Your task to perform on an android device: change keyboard looks Image 0: 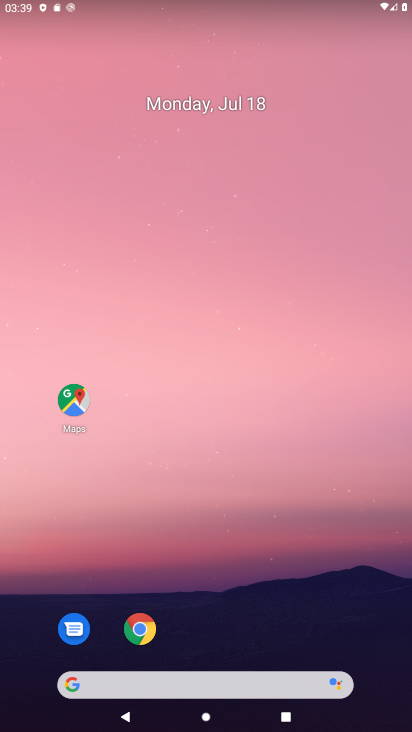
Step 0: drag from (394, 713) to (276, 173)
Your task to perform on an android device: change keyboard looks Image 1: 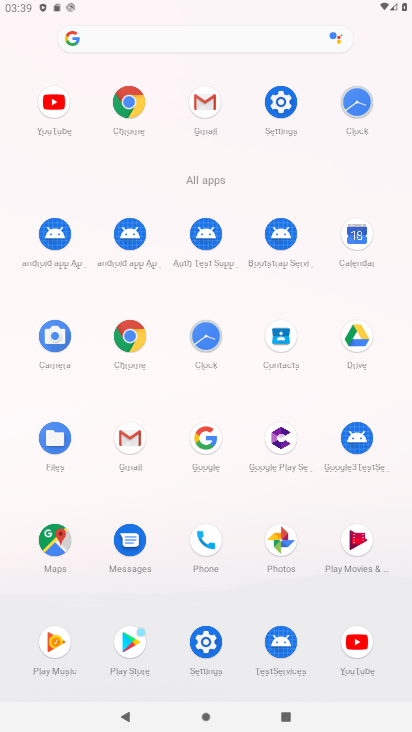
Step 1: click (280, 110)
Your task to perform on an android device: change keyboard looks Image 2: 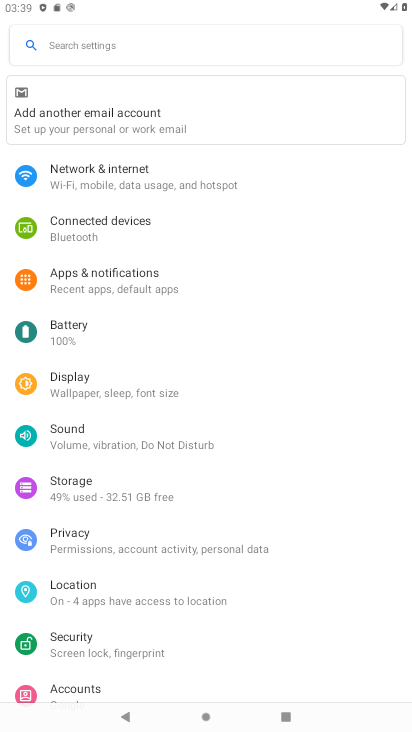
Step 2: drag from (183, 664) to (114, 273)
Your task to perform on an android device: change keyboard looks Image 3: 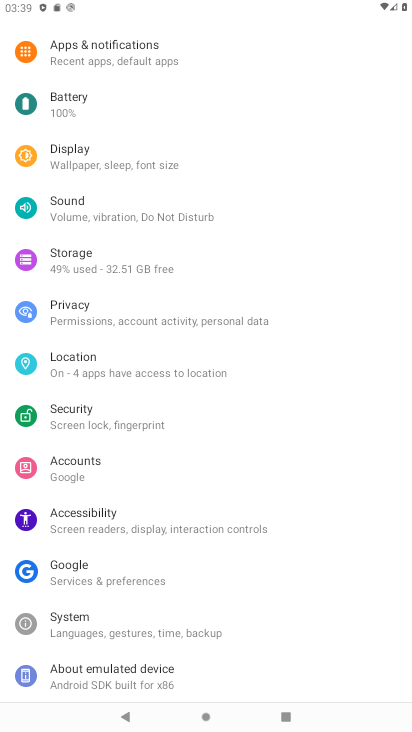
Step 3: click (115, 630)
Your task to perform on an android device: change keyboard looks Image 4: 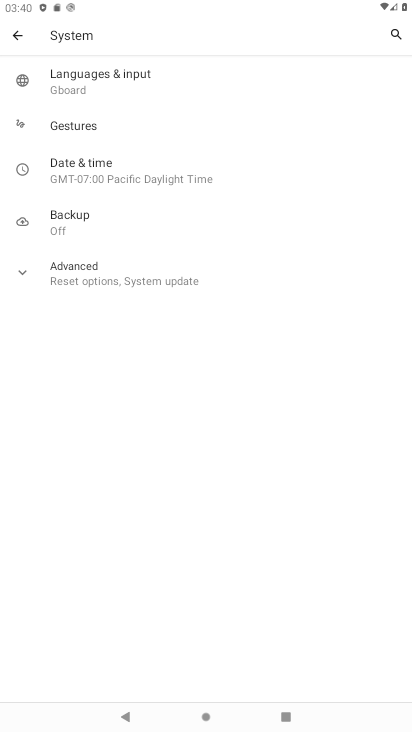
Step 4: click (88, 87)
Your task to perform on an android device: change keyboard looks Image 5: 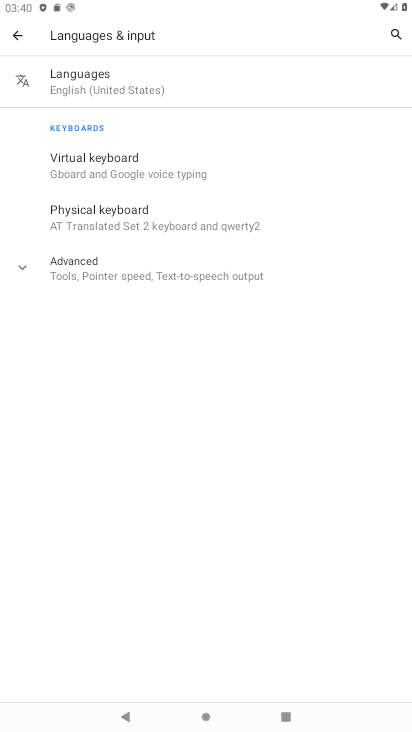
Step 5: click (60, 154)
Your task to perform on an android device: change keyboard looks Image 6: 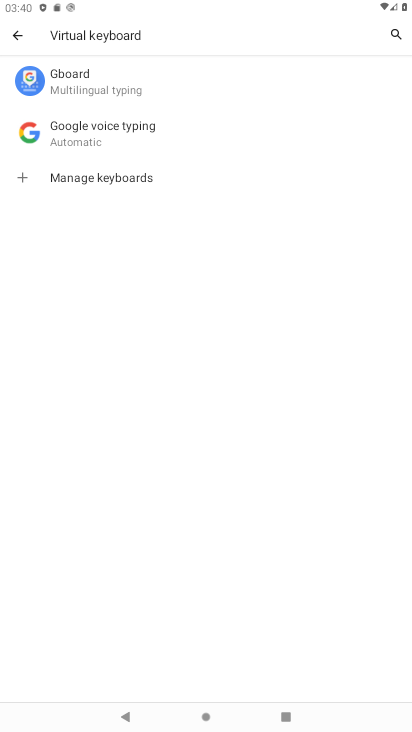
Step 6: click (68, 83)
Your task to perform on an android device: change keyboard looks Image 7: 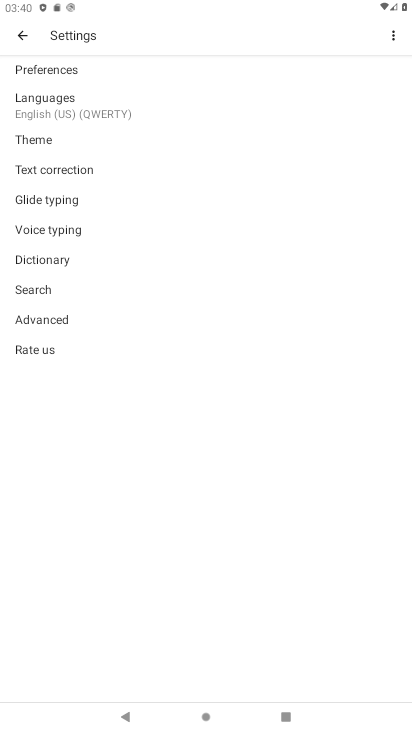
Step 7: click (39, 137)
Your task to perform on an android device: change keyboard looks Image 8: 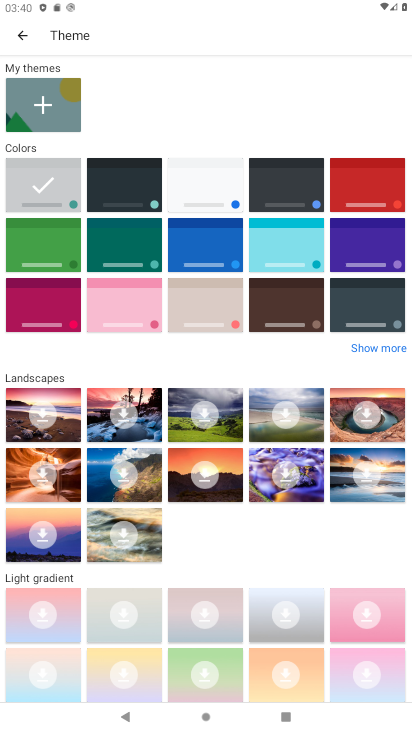
Step 8: click (130, 235)
Your task to perform on an android device: change keyboard looks Image 9: 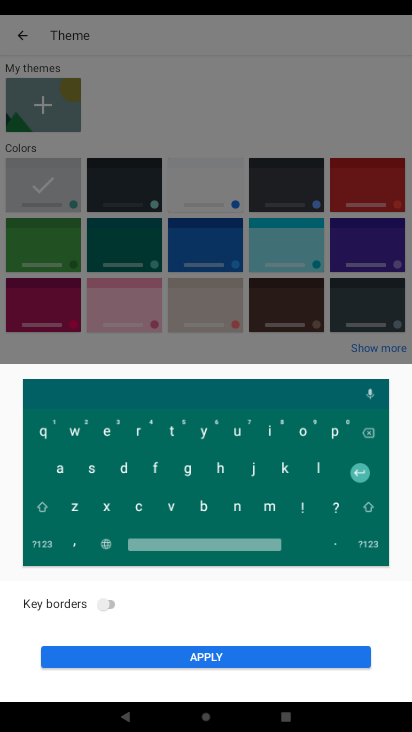
Step 9: click (147, 656)
Your task to perform on an android device: change keyboard looks Image 10: 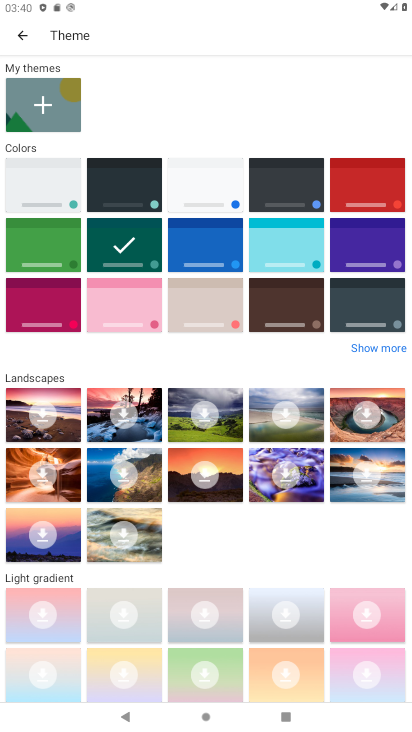
Step 10: task complete